Your task to perform on an android device: Open settings Image 0: 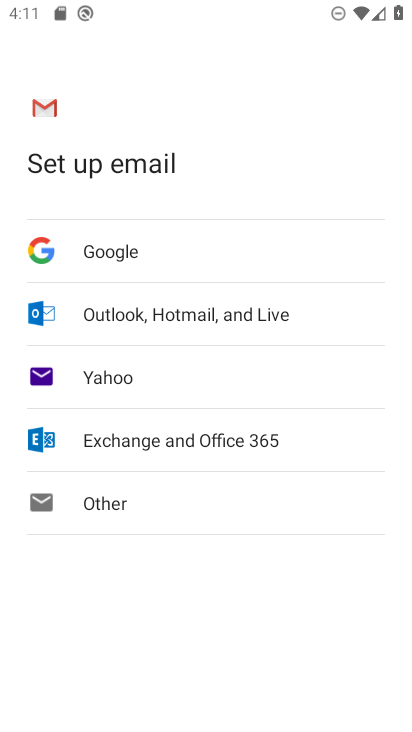
Step 0: press home button
Your task to perform on an android device: Open settings Image 1: 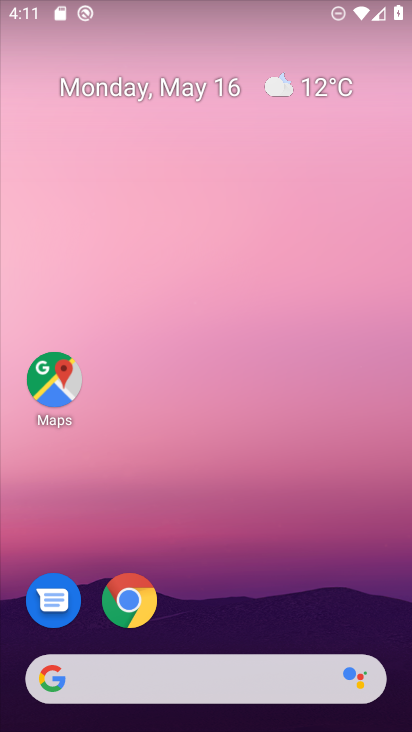
Step 1: drag from (219, 598) to (235, 1)
Your task to perform on an android device: Open settings Image 2: 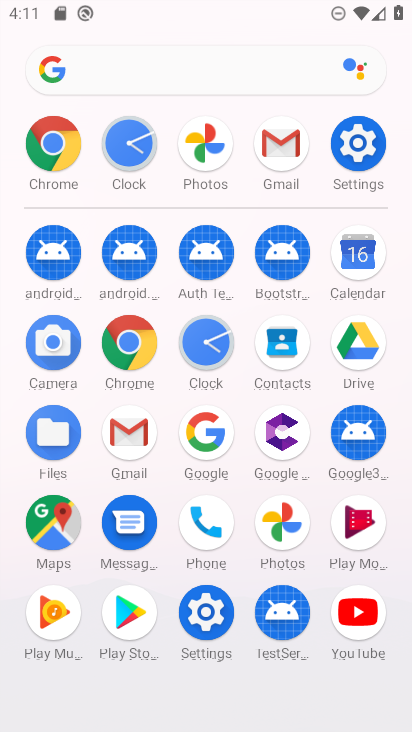
Step 2: click (355, 141)
Your task to perform on an android device: Open settings Image 3: 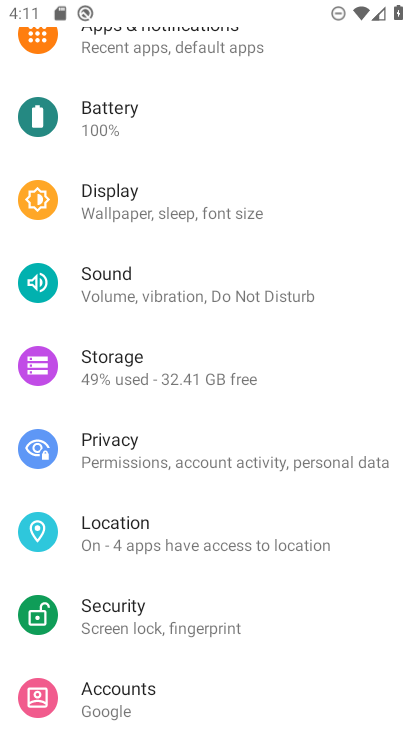
Step 3: task complete